Your task to perform on an android device: allow cookies in the chrome app Image 0: 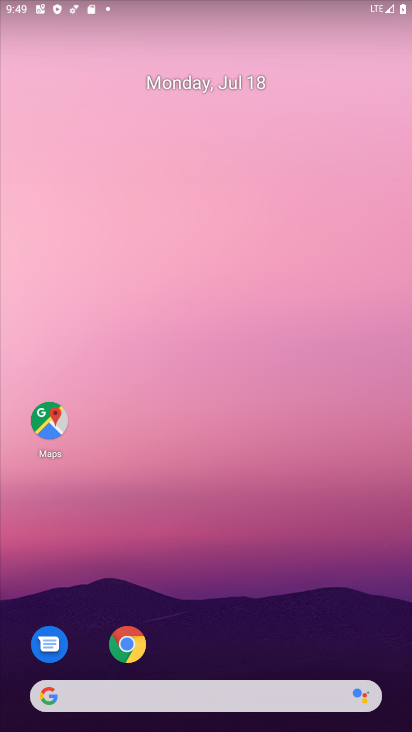
Step 0: drag from (288, 641) to (348, 124)
Your task to perform on an android device: allow cookies in the chrome app Image 1: 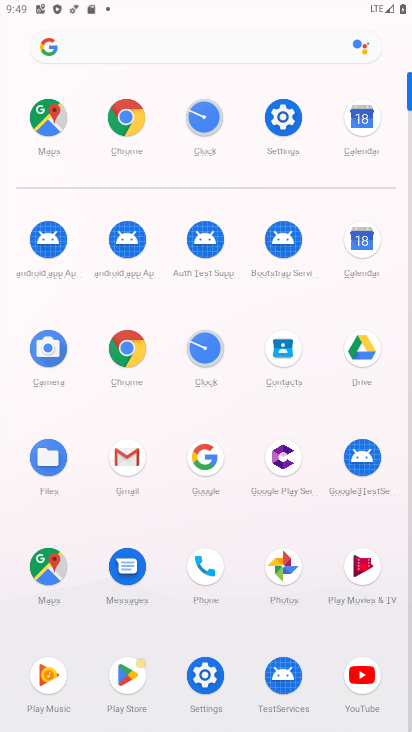
Step 1: click (124, 353)
Your task to perform on an android device: allow cookies in the chrome app Image 2: 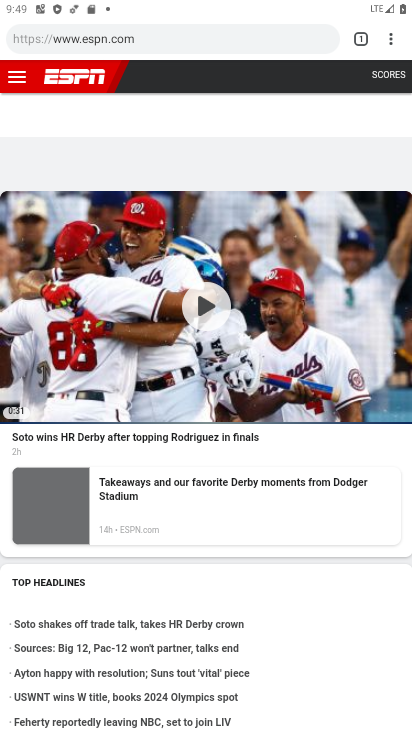
Step 2: click (392, 43)
Your task to perform on an android device: allow cookies in the chrome app Image 3: 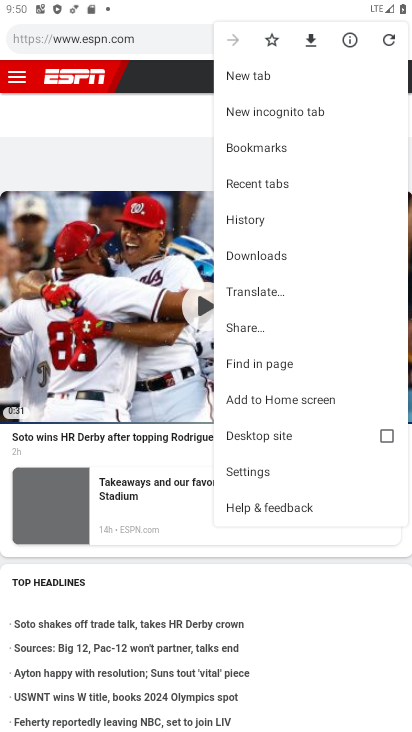
Step 3: click (286, 472)
Your task to perform on an android device: allow cookies in the chrome app Image 4: 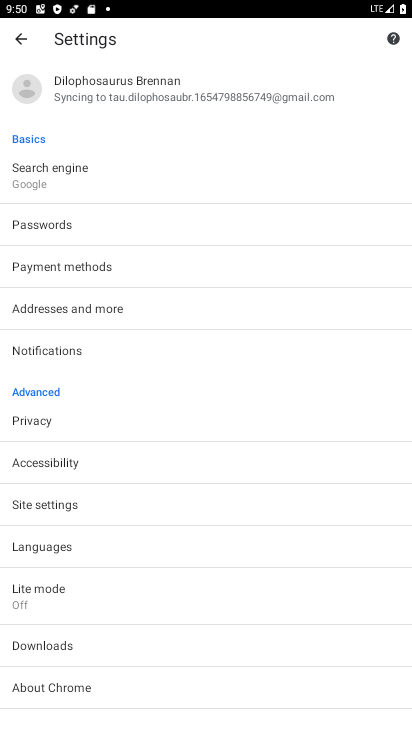
Step 4: drag from (284, 497) to (295, 426)
Your task to perform on an android device: allow cookies in the chrome app Image 5: 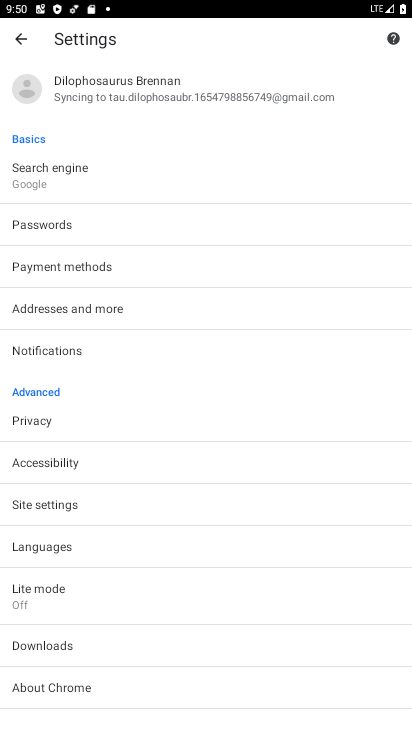
Step 5: click (268, 509)
Your task to perform on an android device: allow cookies in the chrome app Image 6: 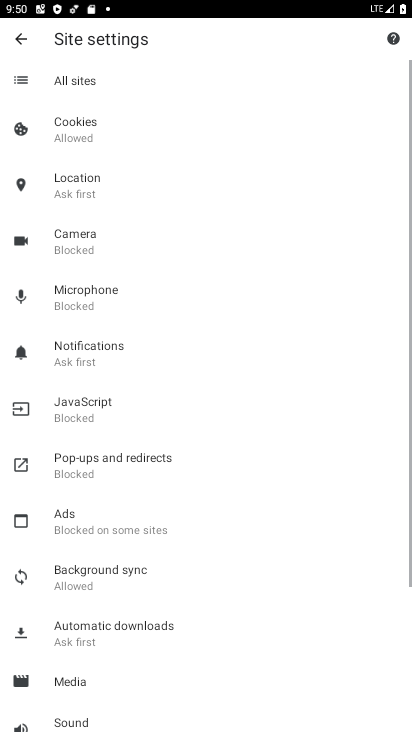
Step 6: drag from (300, 534) to (308, 456)
Your task to perform on an android device: allow cookies in the chrome app Image 7: 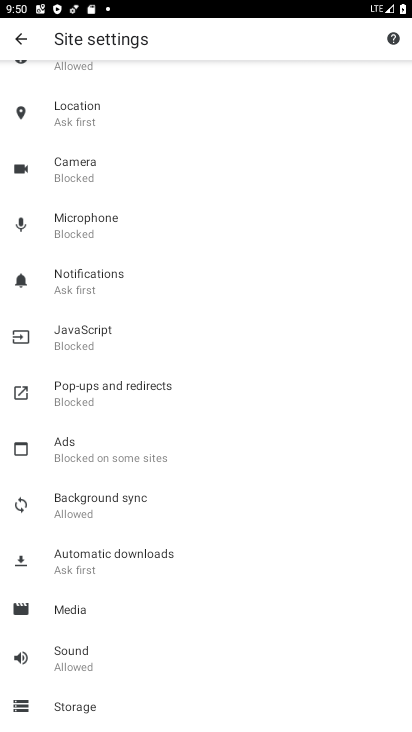
Step 7: drag from (299, 544) to (314, 426)
Your task to perform on an android device: allow cookies in the chrome app Image 8: 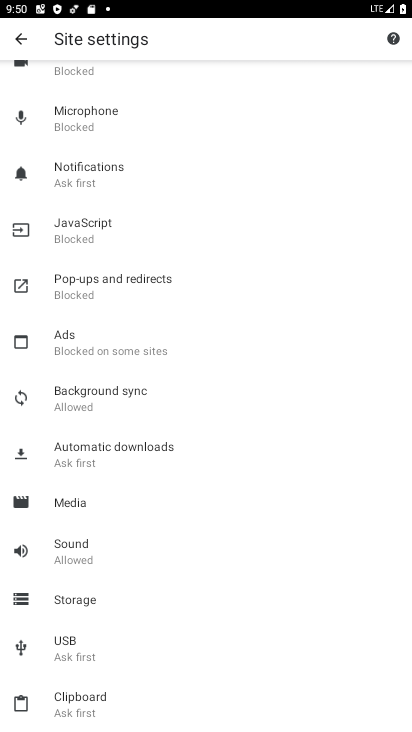
Step 8: drag from (311, 508) to (316, 413)
Your task to perform on an android device: allow cookies in the chrome app Image 9: 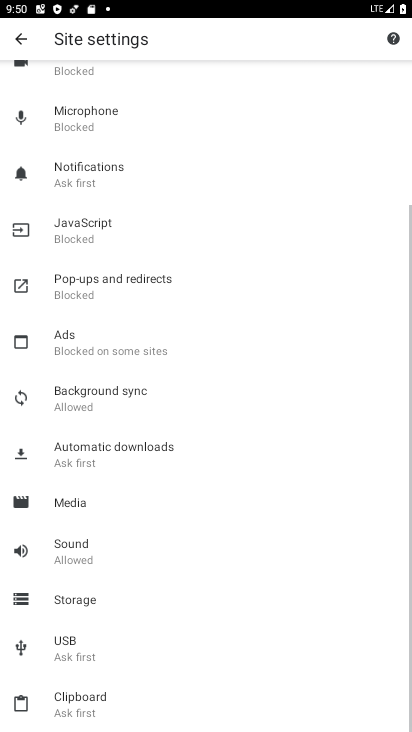
Step 9: drag from (316, 313) to (316, 398)
Your task to perform on an android device: allow cookies in the chrome app Image 10: 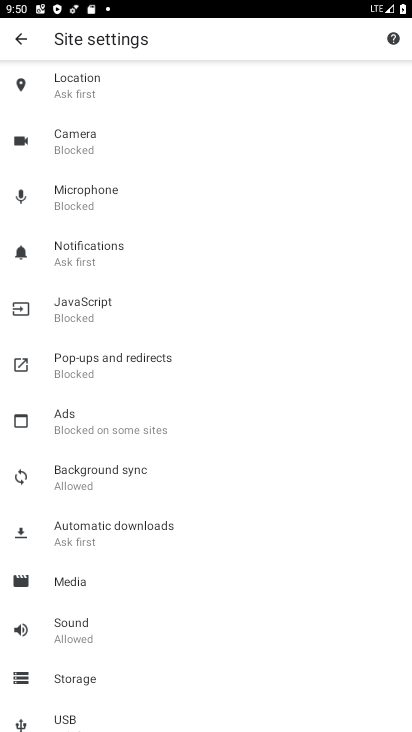
Step 10: drag from (306, 300) to (315, 395)
Your task to perform on an android device: allow cookies in the chrome app Image 11: 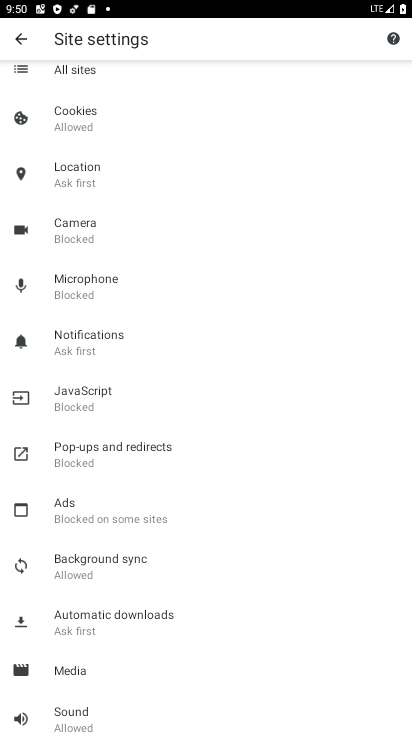
Step 11: drag from (180, 162) to (188, 281)
Your task to perform on an android device: allow cookies in the chrome app Image 12: 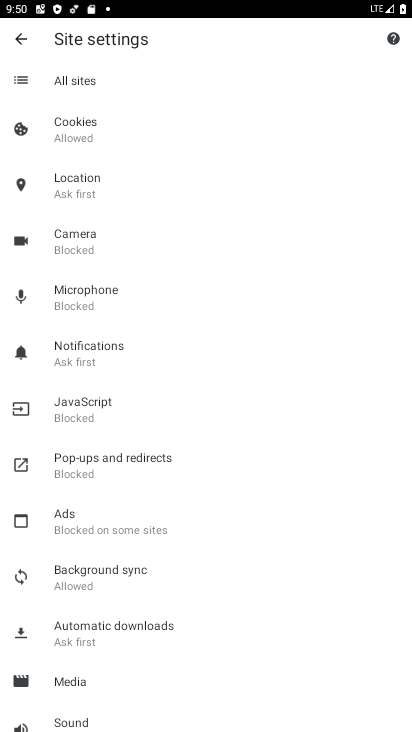
Step 12: click (109, 131)
Your task to perform on an android device: allow cookies in the chrome app Image 13: 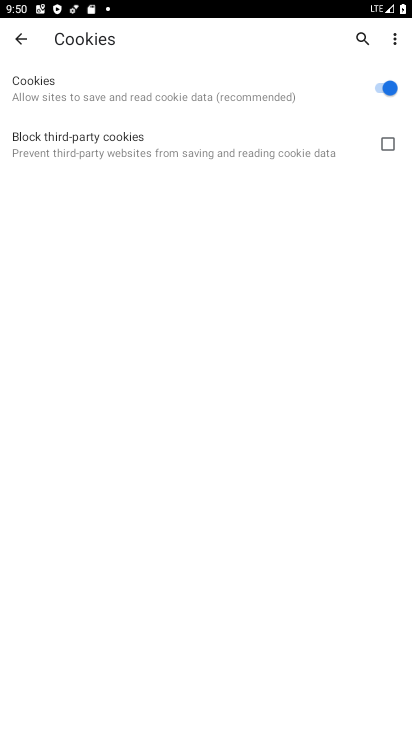
Step 13: task complete